Your task to perform on an android device: change the clock display to digital Image 0: 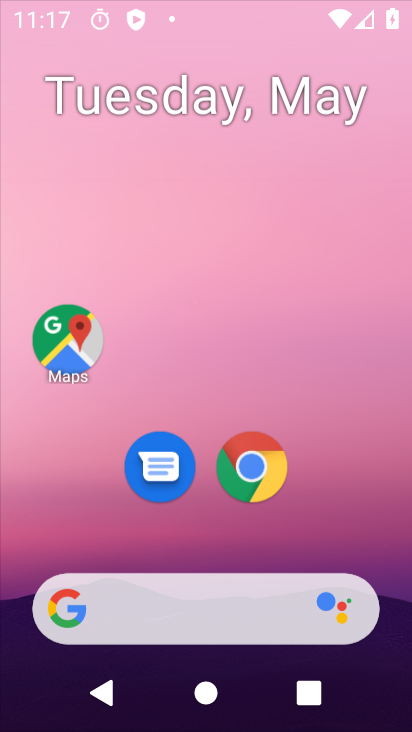
Step 0: click (257, 5)
Your task to perform on an android device: change the clock display to digital Image 1: 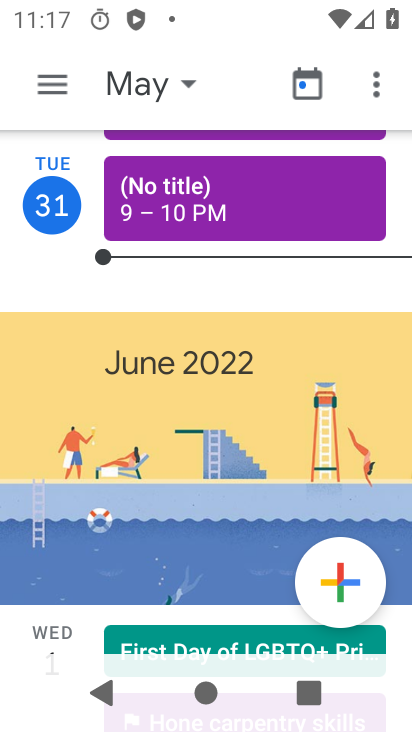
Step 1: press back button
Your task to perform on an android device: change the clock display to digital Image 2: 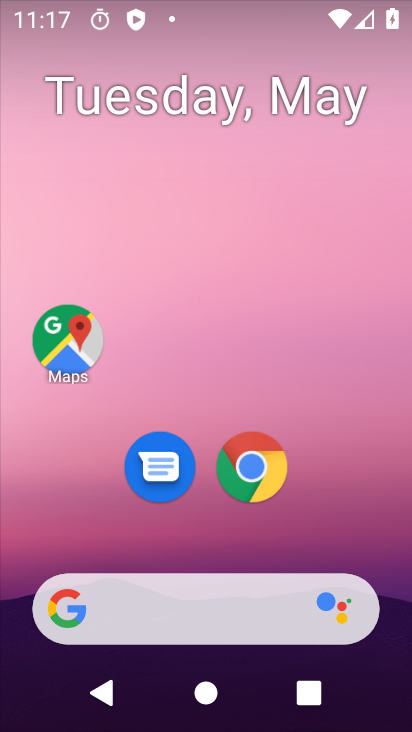
Step 2: drag from (386, 567) to (271, 66)
Your task to perform on an android device: change the clock display to digital Image 3: 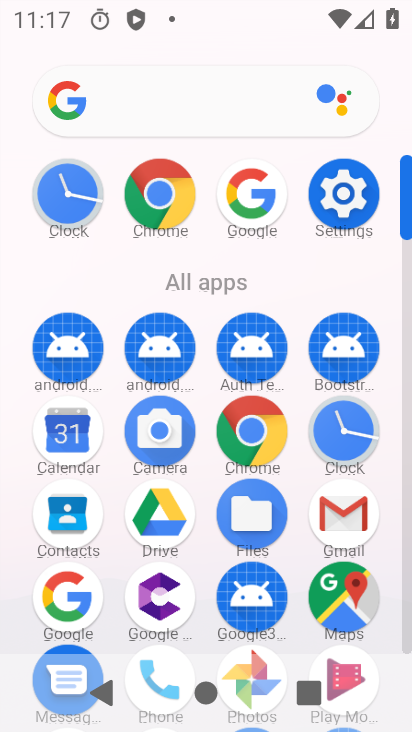
Step 3: click (340, 426)
Your task to perform on an android device: change the clock display to digital Image 4: 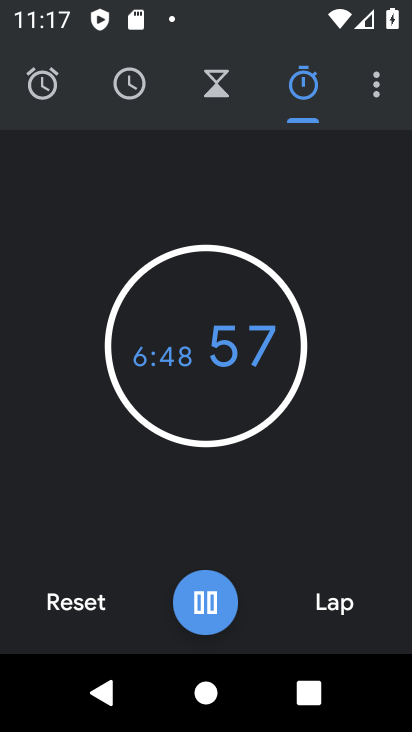
Step 4: drag from (374, 87) to (251, 168)
Your task to perform on an android device: change the clock display to digital Image 5: 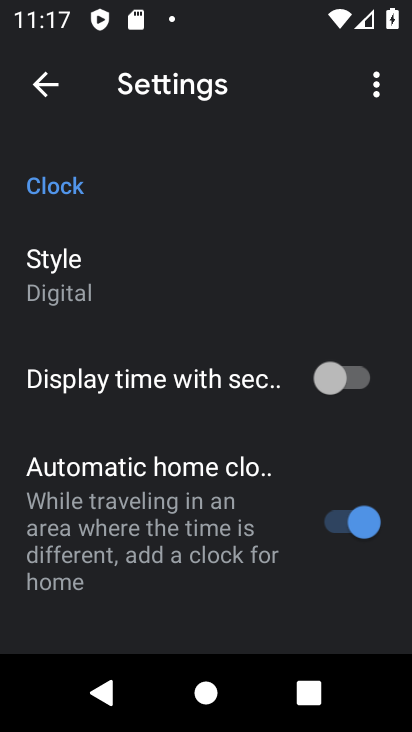
Step 5: click (118, 264)
Your task to perform on an android device: change the clock display to digital Image 6: 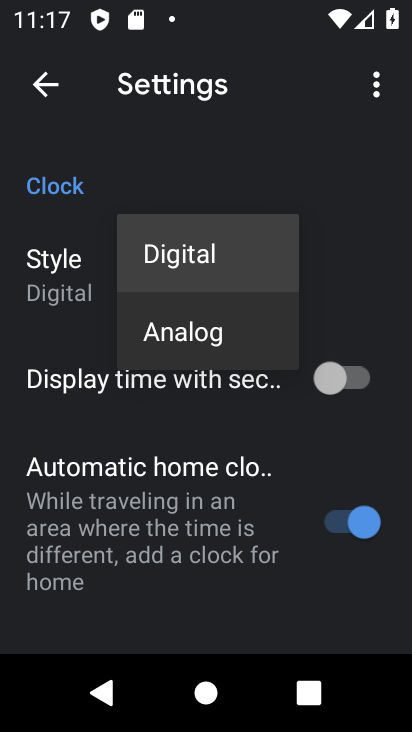
Step 6: click (192, 251)
Your task to perform on an android device: change the clock display to digital Image 7: 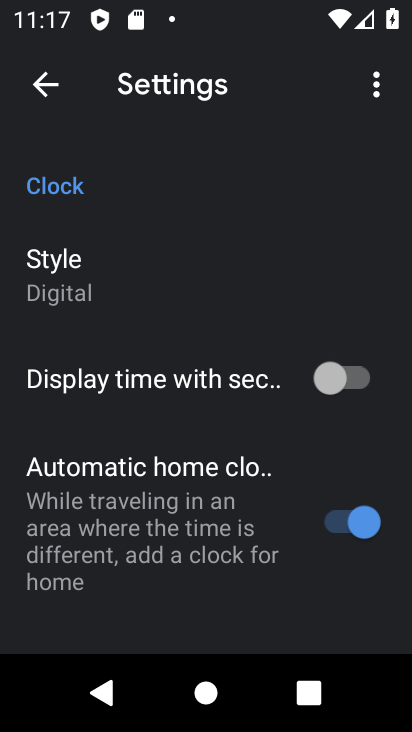
Step 7: task complete